Your task to perform on an android device: star an email in the gmail app Image 0: 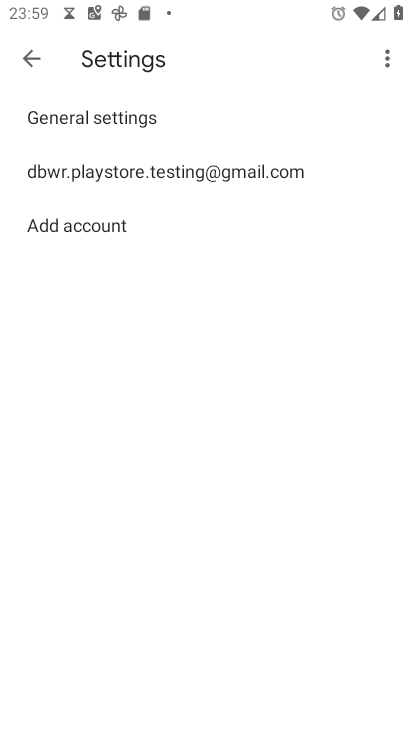
Step 0: press home button
Your task to perform on an android device: star an email in the gmail app Image 1: 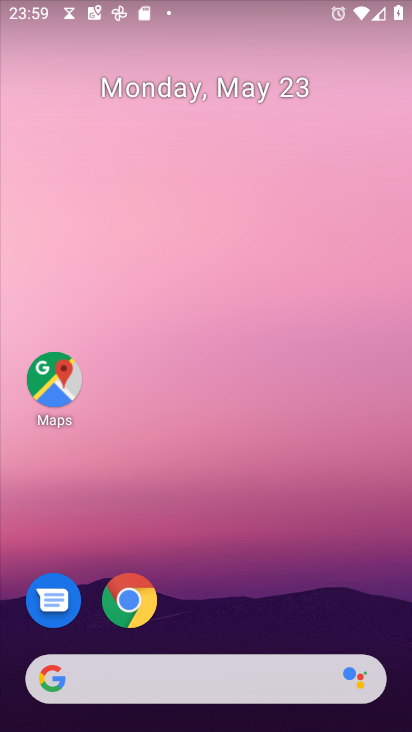
Step 1: drag from (245, 727) to (247, 0)
Your task to perform on an android device: star an email in the gmail app Image 2: 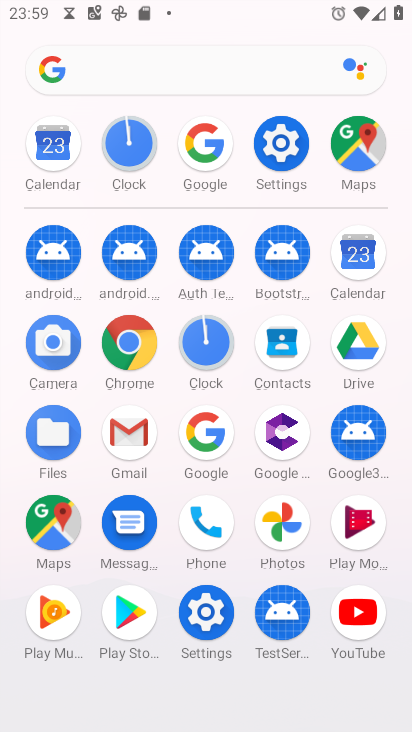
Step 2: click (132, 430)
Your task to perform on an android device: star an email in the gmail app Image 3: 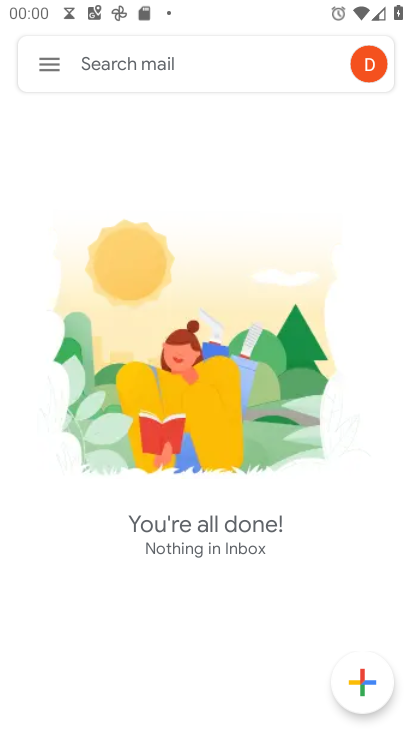
Step 3: task complete